Your task to perform on an android device: What's the weather going to be tomorrow? Image 0: 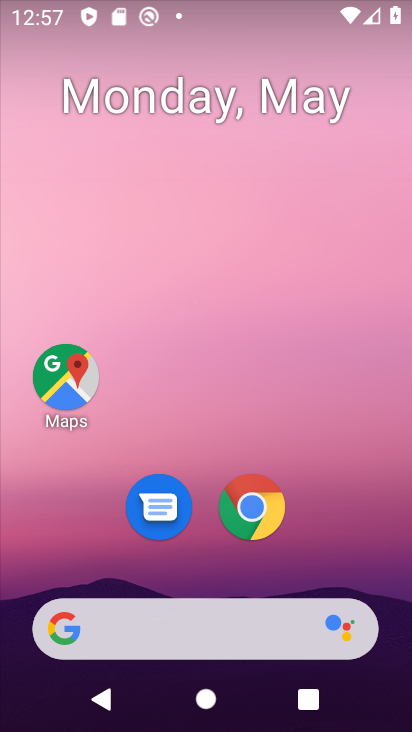
Step 0: click (252, 523)
Your task to perform on an android device: What's the weather going to be tomorrow? Image 1: 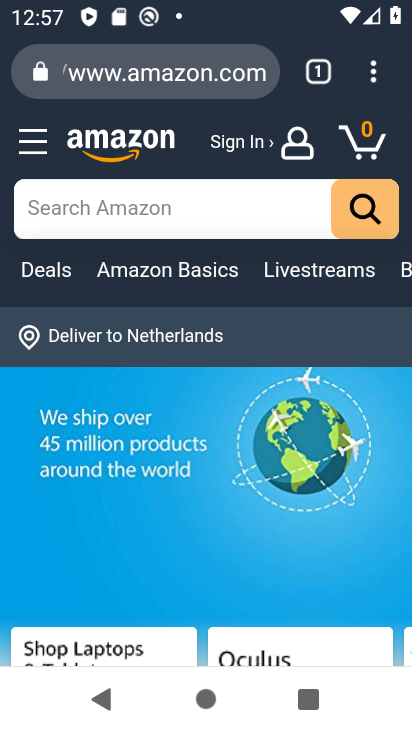
Step 1: click (225, 84)
Your task to perform on an android device: What's the weather going to be tomorrow? Image 2: 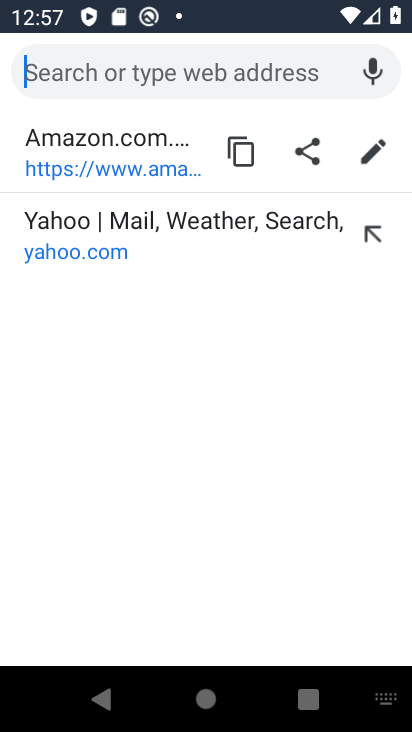
Step 2: type "weater"
Your task to perform on an android device: What's the weather going to be tomorrow? Image 3: 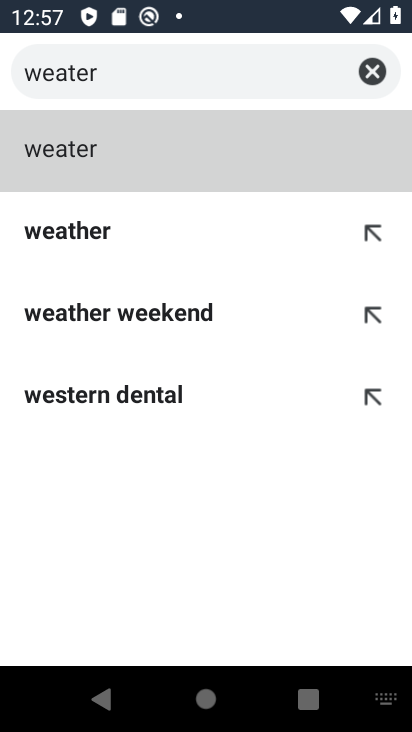
Step 3: click (361, 65)
Your task to perform on an android device: What's the weather going to be tomorrow? Image 4: 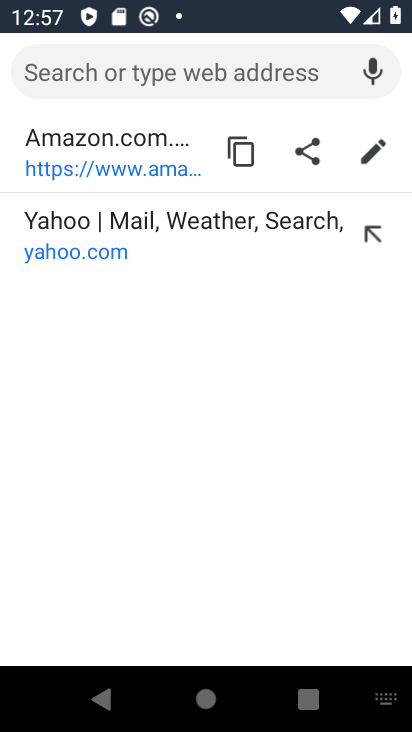
Step 4: type "weather"
Your task to perform on an android device: What's the weather going to be tomorrow? Image 5: 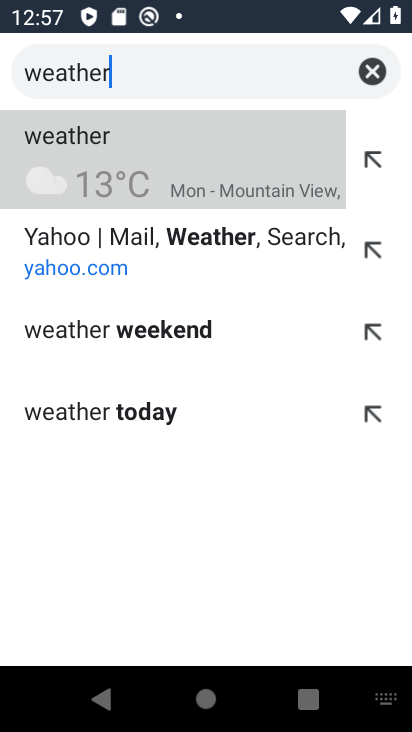
Step 5: click (128, 176)
Your task to perform on an android device: What's the weather going to be tomorrow? Image 6: 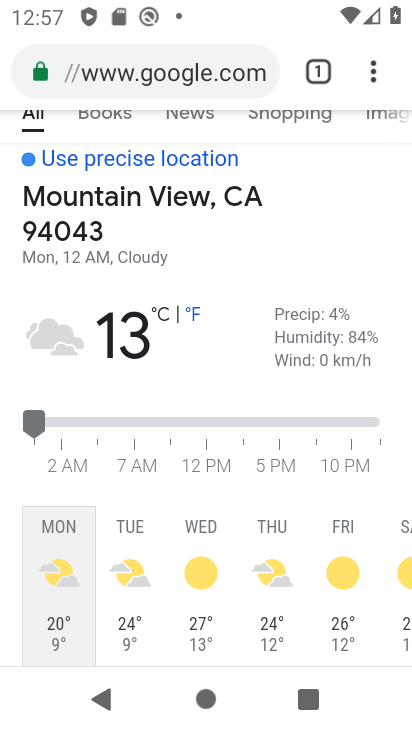
Step 6: drag from (274, 469) to (296, 167)
Your task to perform on an android device: What's the weather going to be tomorrow? Image 7: 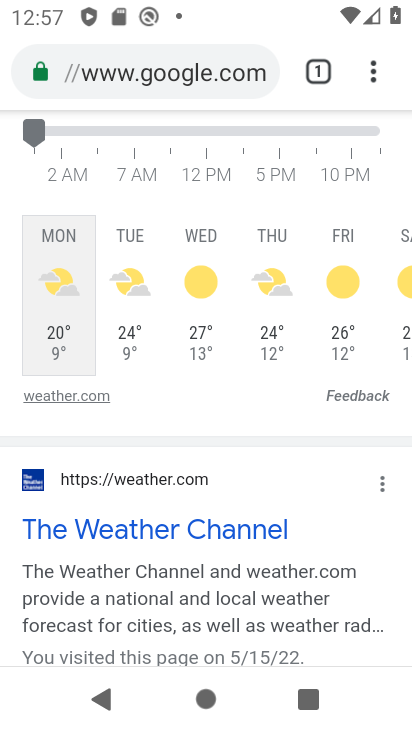
Step 7: click (141, 296)
Your task to perform on an android device: What's the weather going to be tomorrow? Image 8: 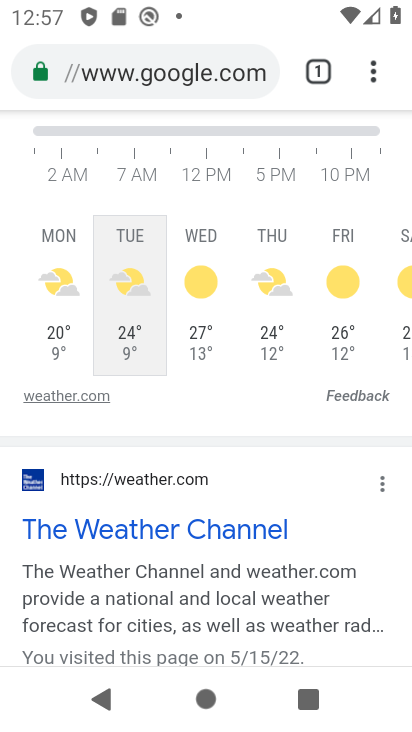
Step 8: task complete